Your task to perform on an android device: Clear the cart on amazon. Search for "corsair k70" on amazon, select the first entry, add it to the cart, then select checkout. Image 0: 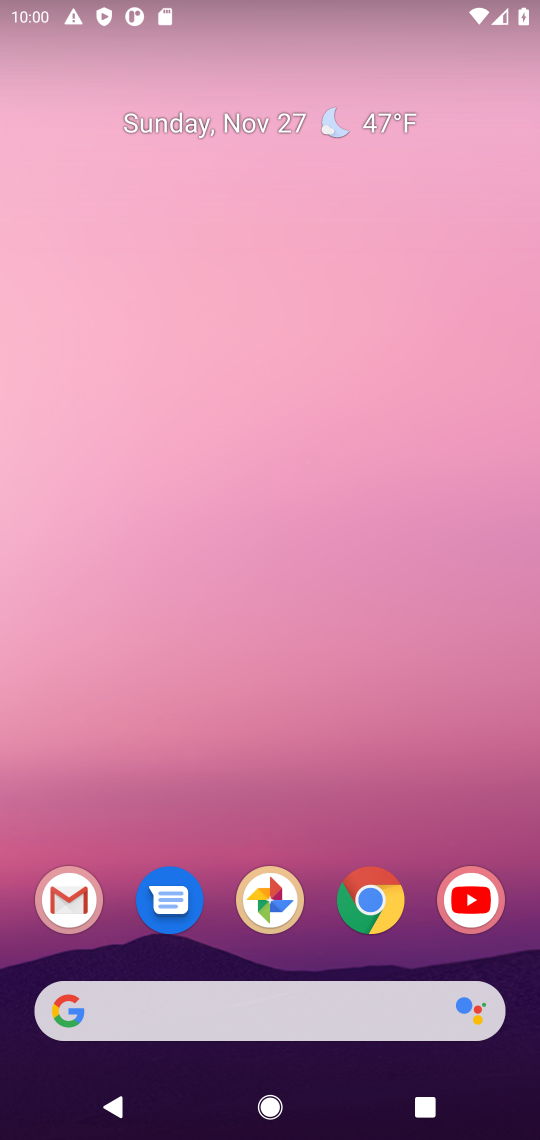
Step 0: click (368, 899)
Your task to perform on an android device: Clear the cart on amazon. Search for "corsair k70" on amazon, select the first entry, add it to the cart, then select checkout. Image 1: 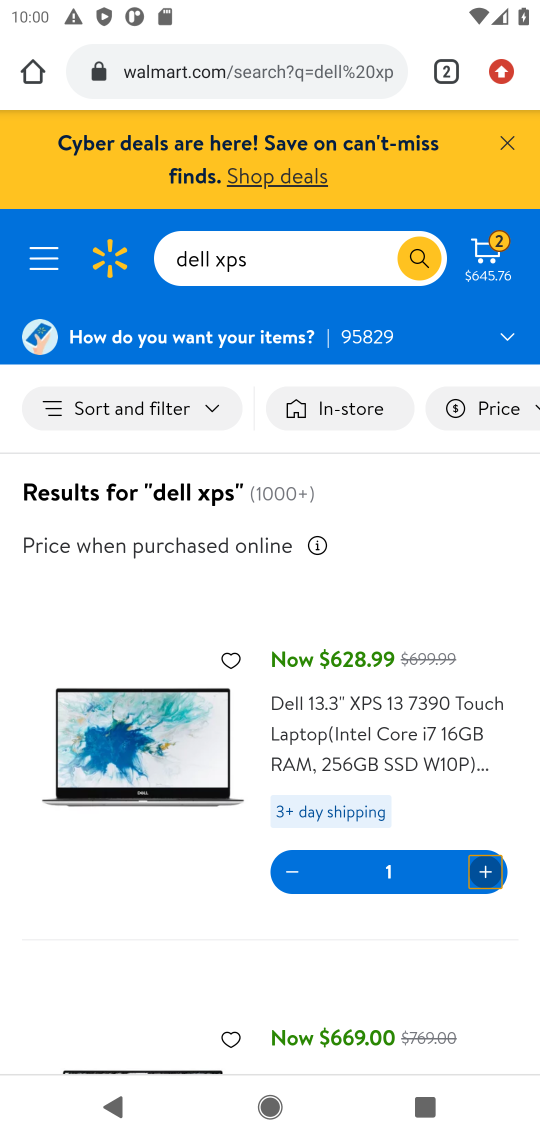
Step 1: click (158, 69)
Your task to perform on an android device: Clear the cart on amazon. Search for "corsair k70" on amazon, select the first entry, add it to the cart, then select checkout. Image 2: 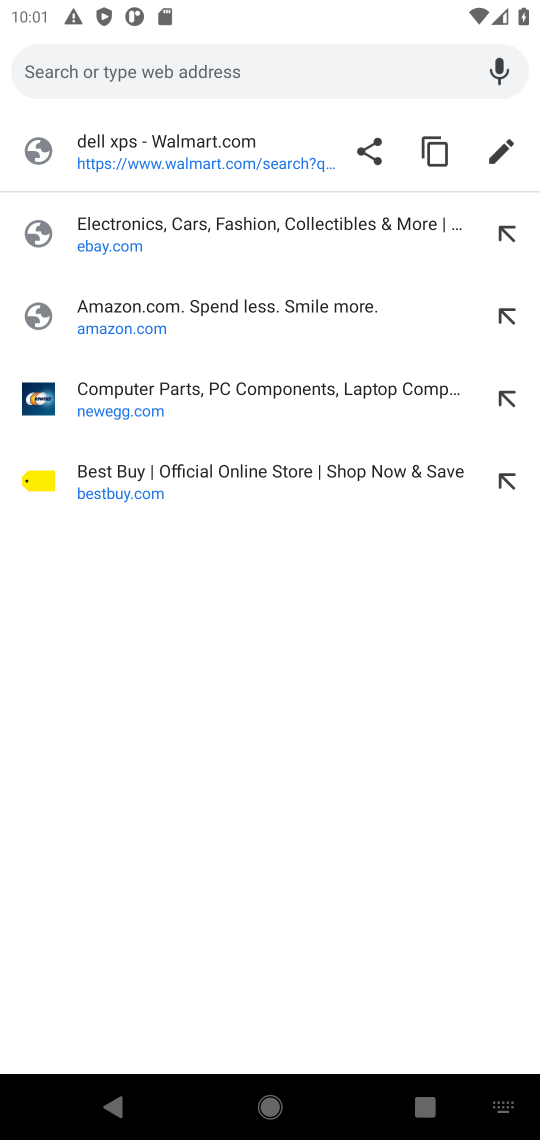
Step 2: click (96, 316)
Your task to perform on an android device: Clear the cart on amazon. Search for "corsair k70" on amazon, select the first entry, add it to the cart, then select checkout. Image 3: 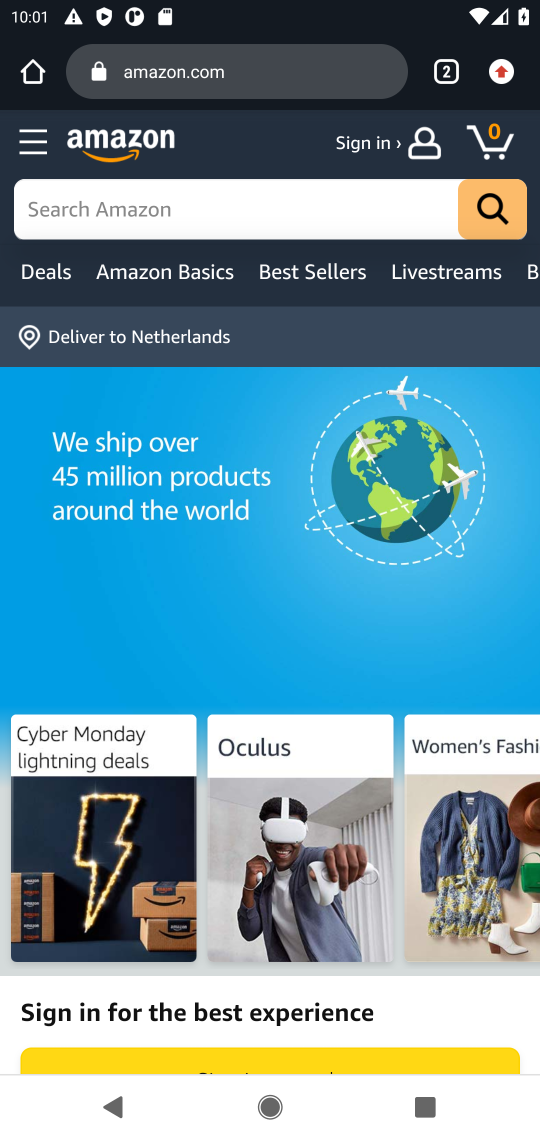
Step 3: click (499, 149)
Your task to perform on an android device: Clear the cart on amazon. Search for "corsair k70" on amazon, select the first entry, add it to the cart, then select checkout. Image 4: 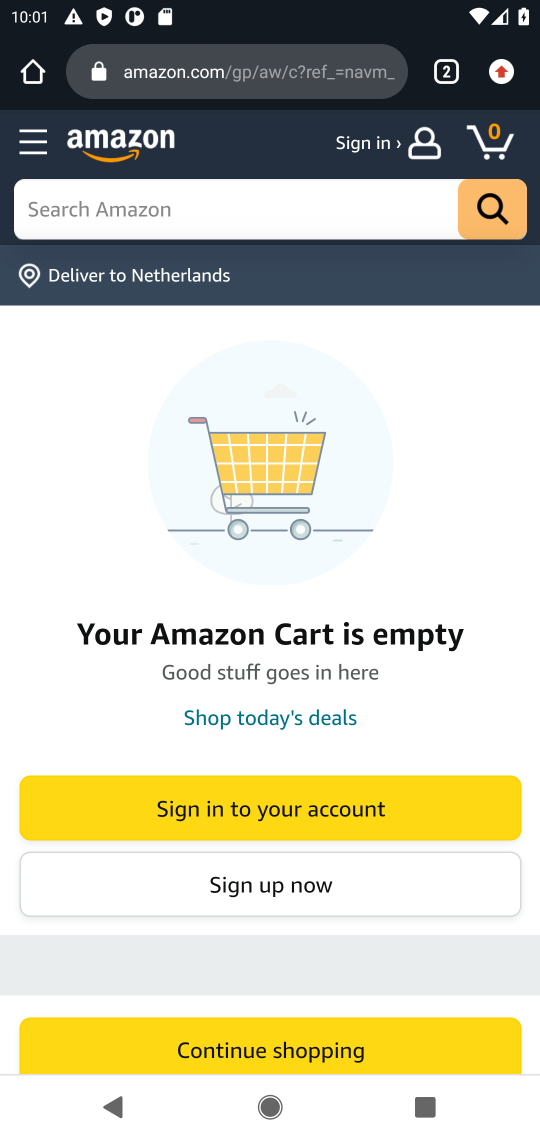
Step 4: click (89, 207)
Your task to perform on an android device: Clear the cart on amazon. Search for "corsair k70" on amazon, select the first entry, add it to the cart, then select checkout. Image 5: 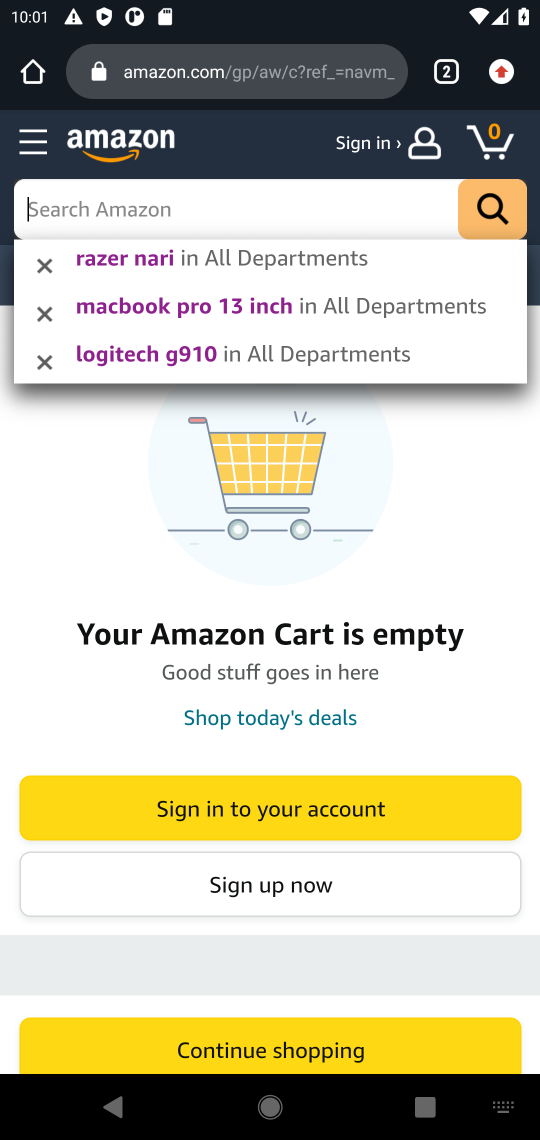
Step 5: type "corsair k70"
Your task to perform on an android device: Clear the cart on amazon. Search for "corsair k70" on amazon, select the first entry, add it to the cart, then select checkout. Image 6: 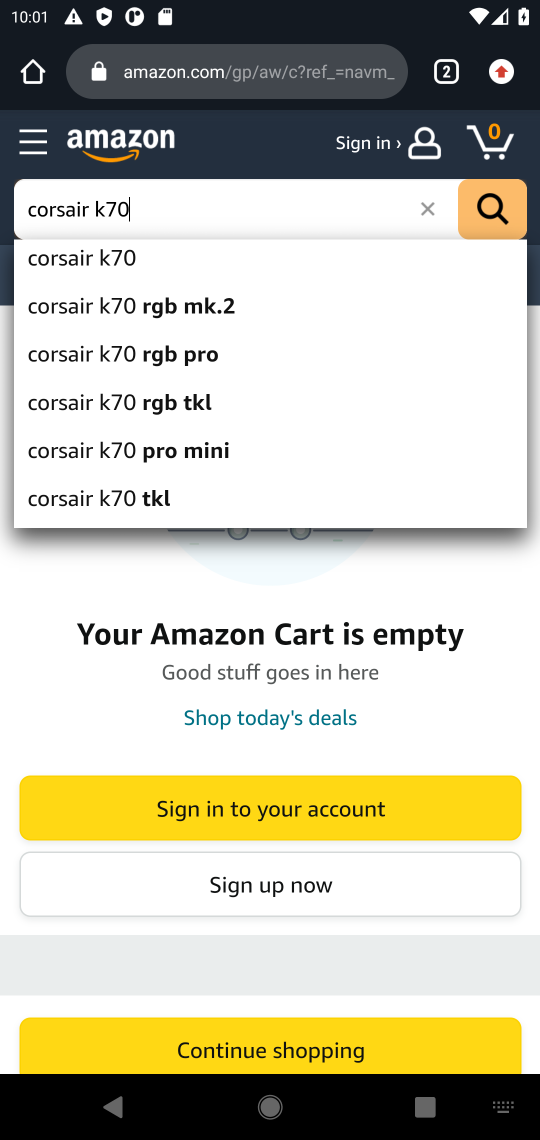
Step 6: click (71, 255)
Your task to perform on an android device: Clear the cart on amazon. Search for "corsair k70" on amazon, select the first entry, add it to the cart, then select checkout. Image 7: 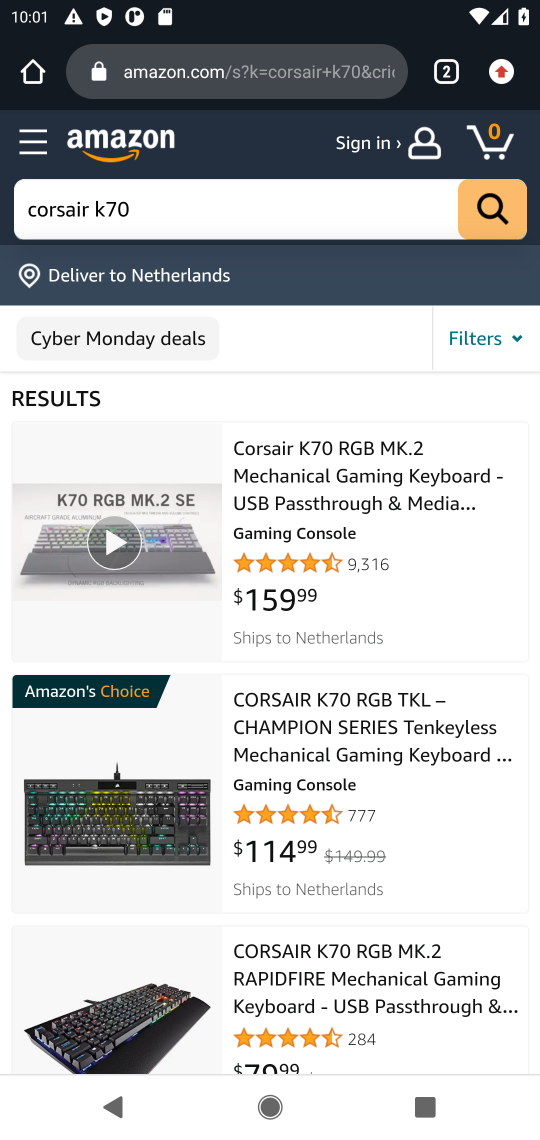
Step 7: click (289, 499)
Your task to perform on an android device: Clear the cart on amazon. Search for "corsair k70" on amazon, select the first entry, add it to the cart, then select checkout. Image 8: 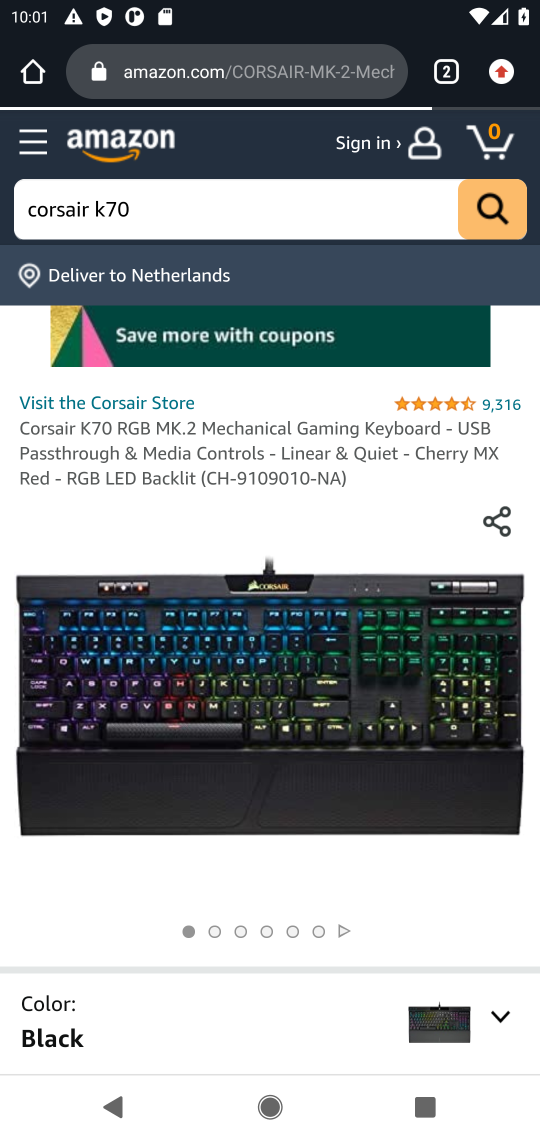
Step 8: drag from (280, 846) to (332, 396)
Your task to perform on an android device: Clear the cart on amazon. Search for "corsair k70" on amazon, select the first entry, add it to the cart, then select checkout. Image 9: 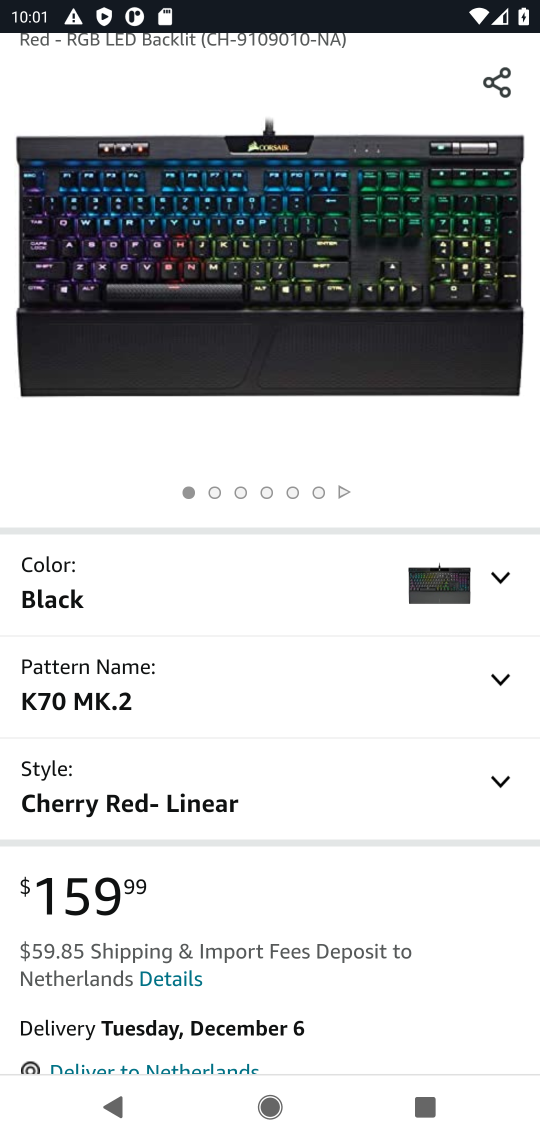
Step 9: drag from (225, 760) to (259, 507)
Your task to perform on an android device: Clear the cart on amazon. Search for "corsair k70" on amazon, select the first entry, add it to the cart, then select checkout. Image 10: 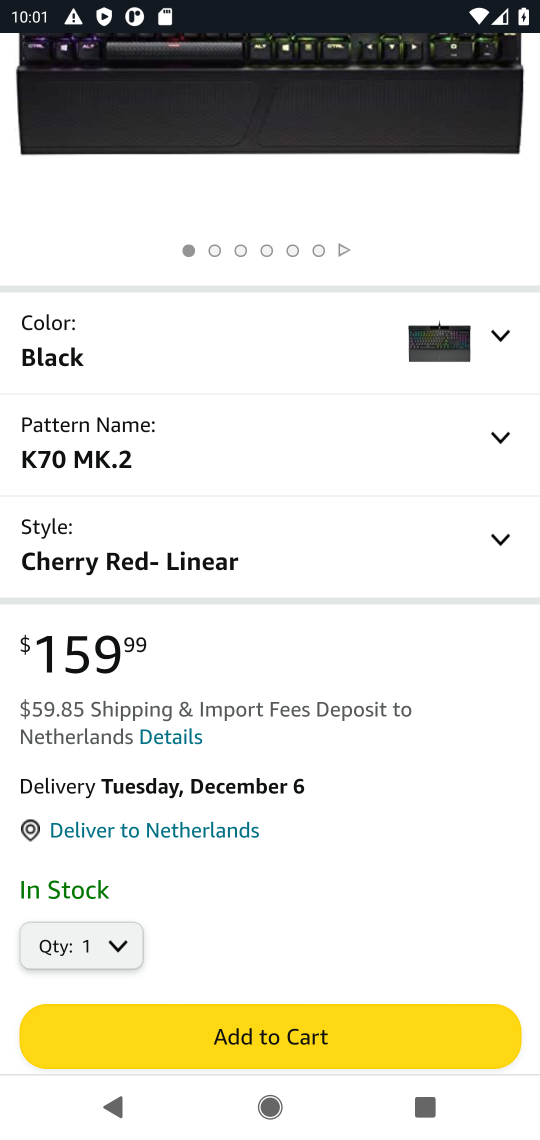
Step 10: click (210, 918)
Your task to perform on an android device: Clear the cart on amazon. Search for "corsair k70" on amazon, select the first entry, add it to the cart, then select checkout. Image 11: 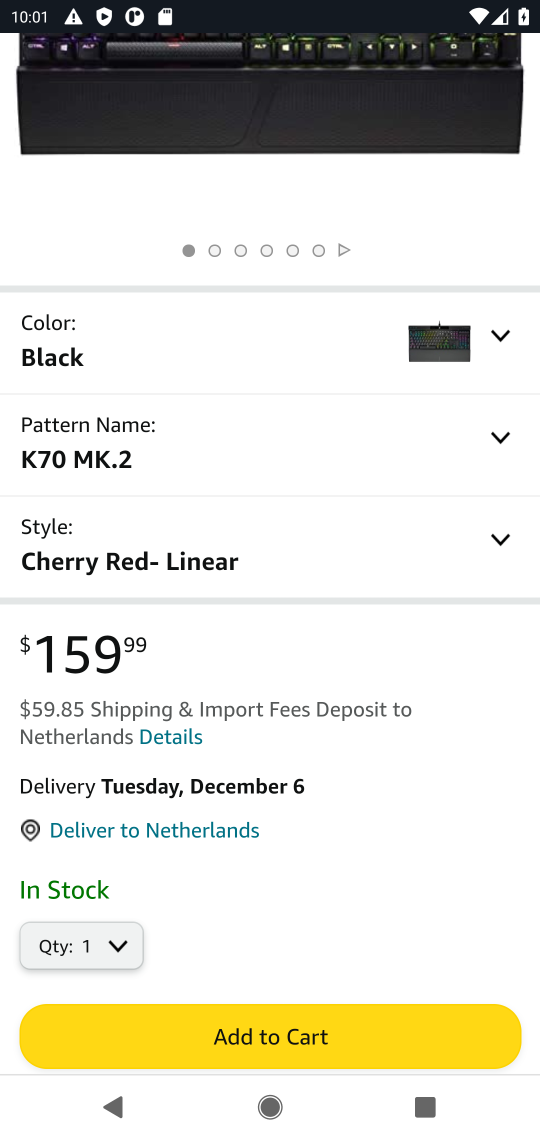
Step 11: click (262, 1027)
Your task to perform on an android device: Clear the cart on amazon. Search for "corsair k70" on amazon, select the first entry, add it to the cart, then select checkout. Image 12: 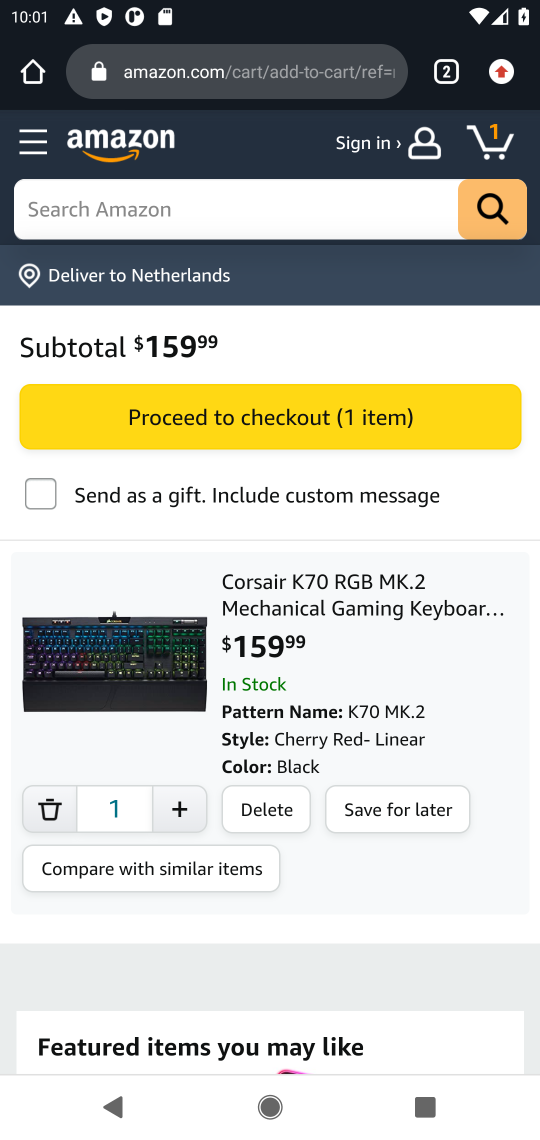
Step 12: click (241, 422)
Your task to perform on an android device: Clear the cart on amazon. Search for "corsair k70" on amazon, select the first entry, add it to the cart, then select checkout. Image 13: 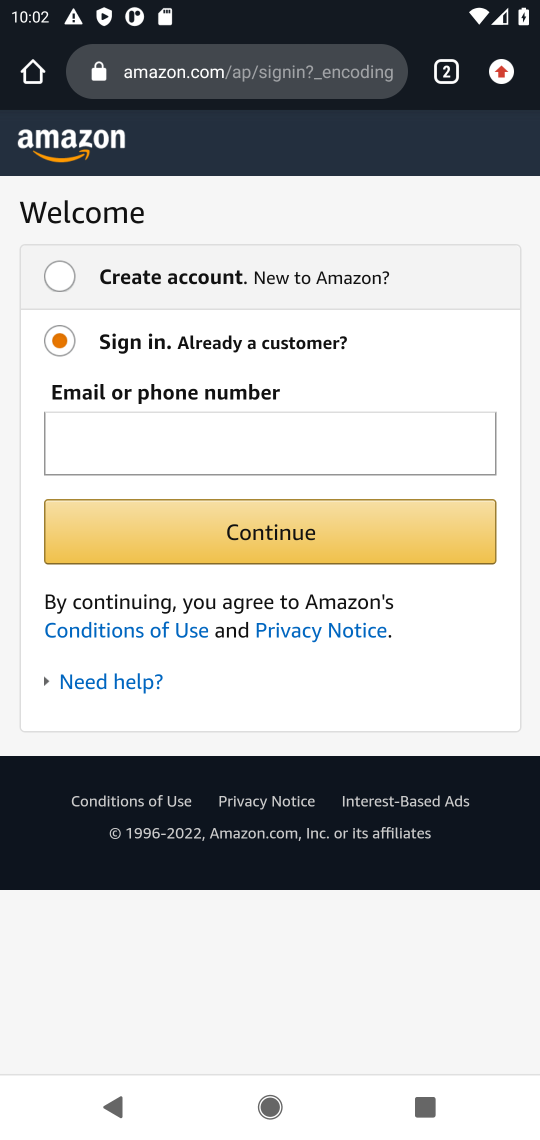
Step 13: task complete